Your task to perform on an android device: check out phone information Image 0: 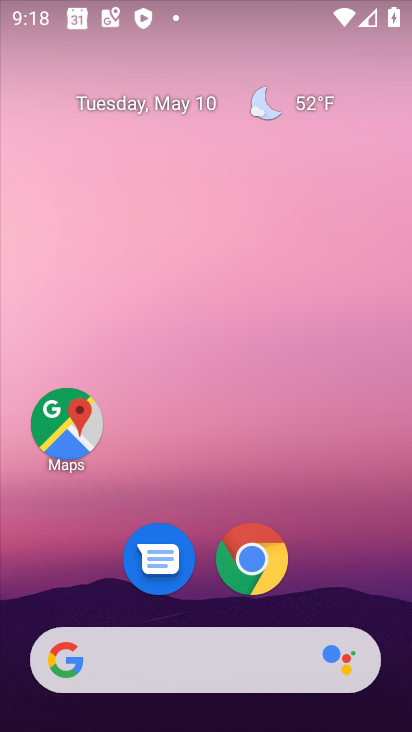
Step 0: drag from (358, 535) to (235, 2)
Your task to perform on an android device: check out phone information Image 1: 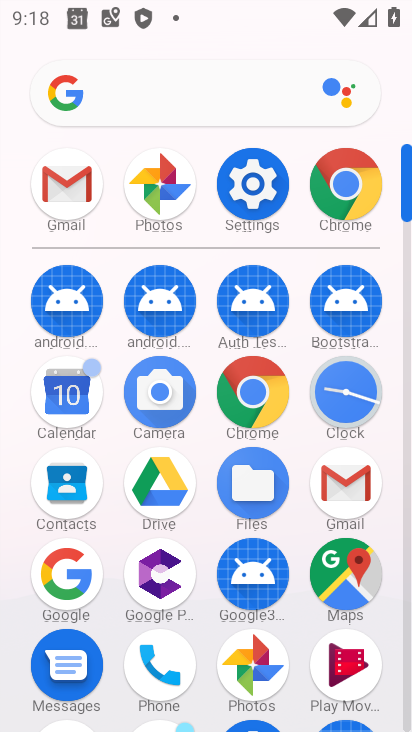
Step 1: drag from (9, 547) to (19, 227)
Your task to perform on an android device: check out phone information Image 2: 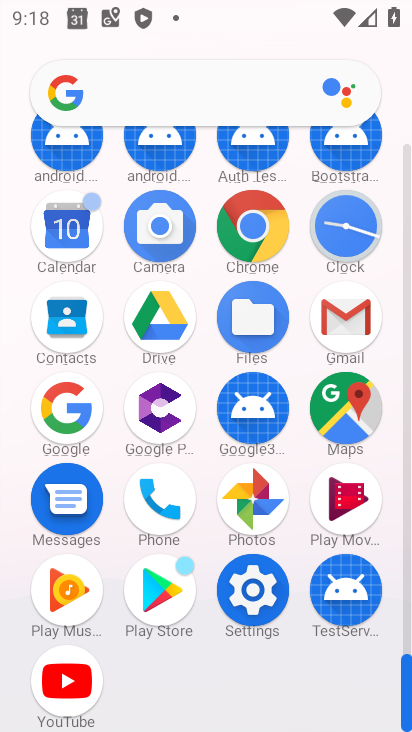
Step 2: click (251, 585)
Your task to perform on an android device: check out phone information Image 3: 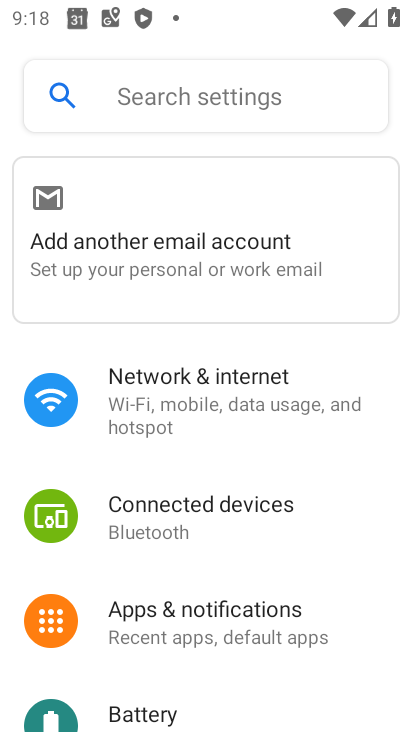
Step 3: drag from (277, 617) to (296, 172)
Your task to perform on an android device: check out phone information Image 4: 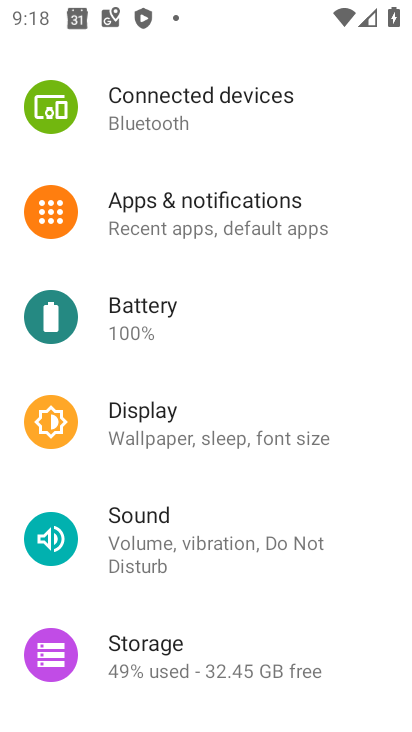
Step 4: drag from (290, 634) to (307, 163)
Your task to perform on an android device: check out phone information Image 5: 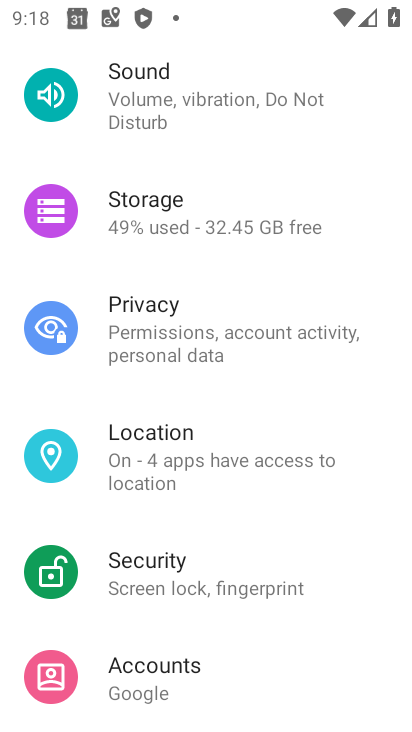
Step 5: drag from (305, 645) to (303, 151)
Your task to perform on an android device: check out phone information Image 6: 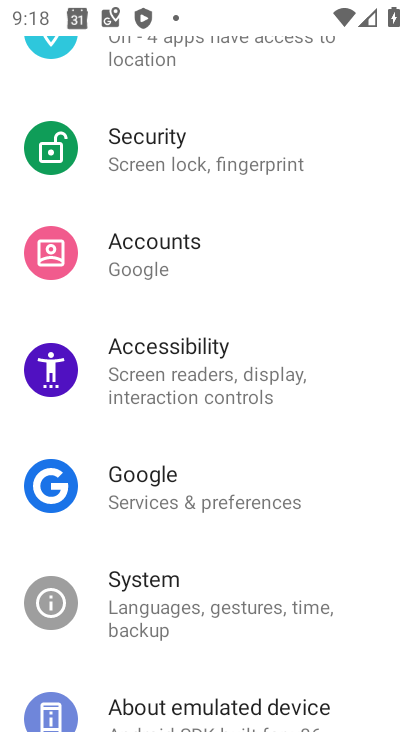
Step 6: drag from (261, 635) to (287, 157)
Your task to perform on an android device: check out phone information Image 7: 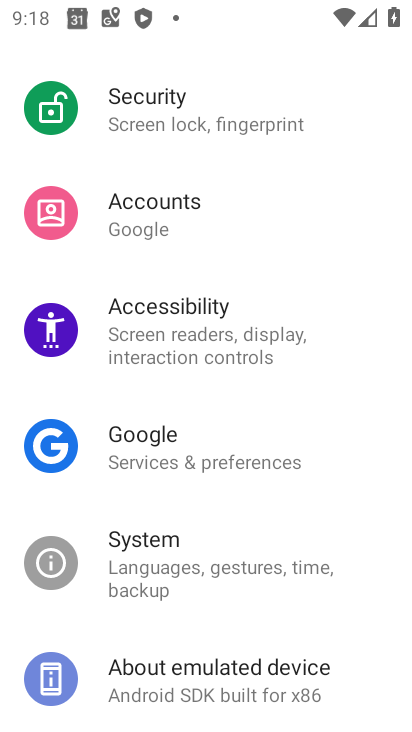
Step 7: click (229, 674)
Your task to perform on an android device: check out phone information Image 8: 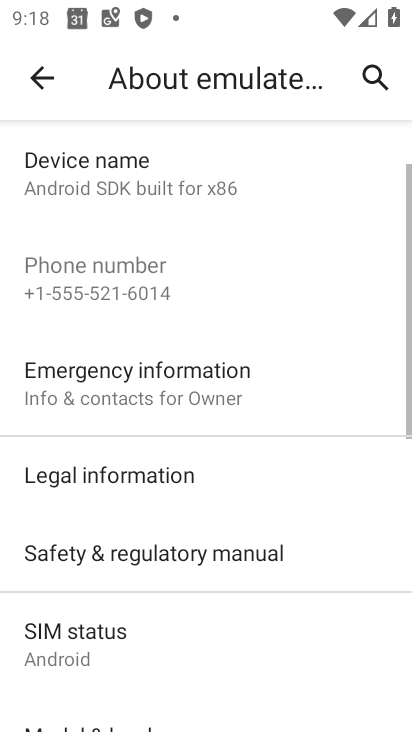
Step 8: task complete